Your task to perform on an android device: change notifications settings Image 0: 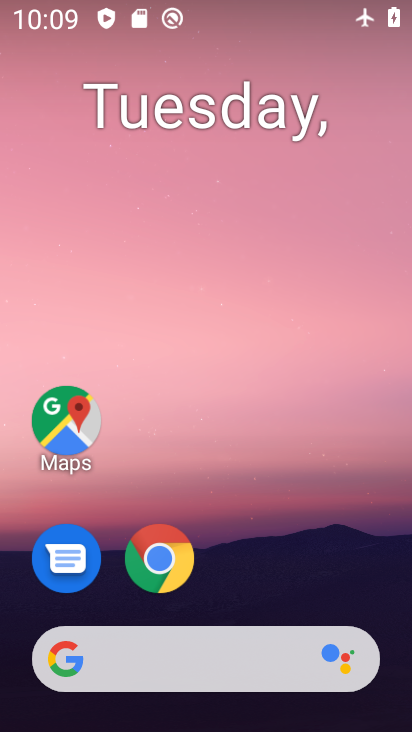
Step 0: drag from (318, 452) to (341, 164)
Your task to perform on an android device: change notifications settings Image 1: 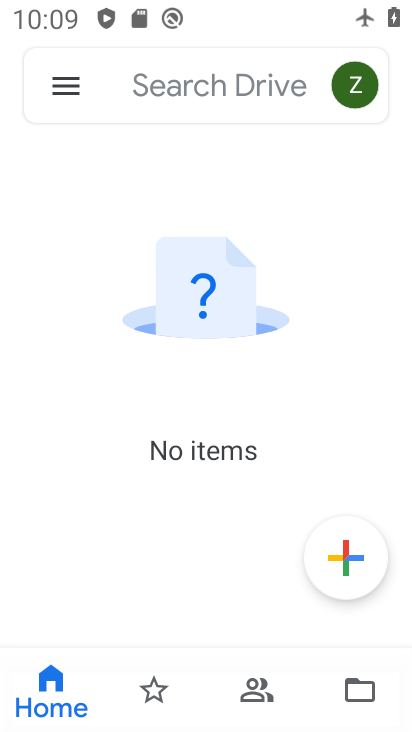
Step 1: press home button
Your task to perform on an android device: change notifications settings Image 2: 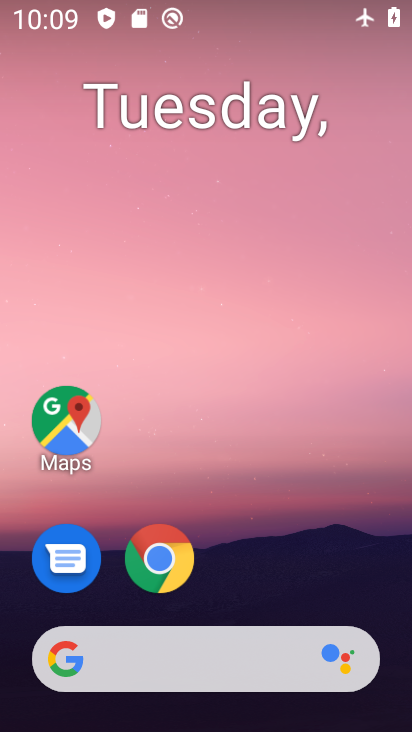
Step 2: drag from (362, 586) to (366, 146)
Your task to perform on an android device: change notifications settings Image 3: 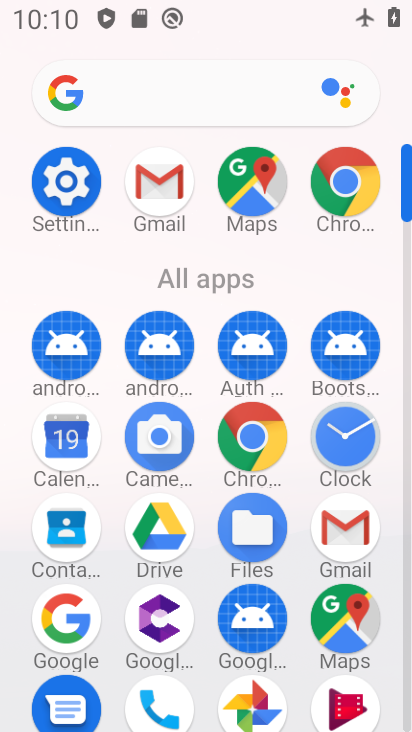
Step 3: click (83, 184)
Your task to perform on an android device: change notifications settings Image 4: 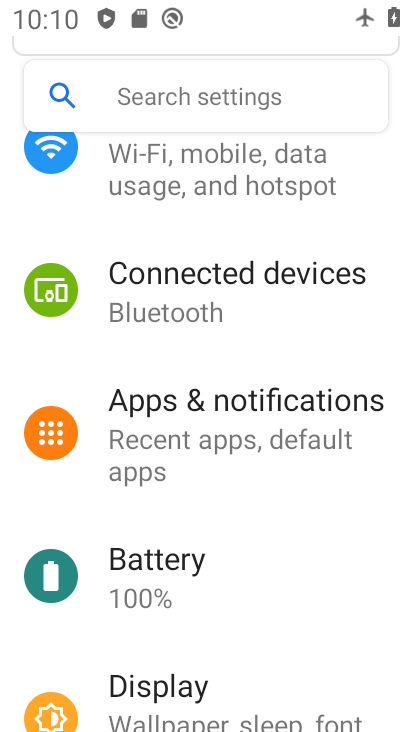
Step 4: drag from (342, 578) to (350, 493)
Your task to perform on an android device: change notifications settings Image 5: 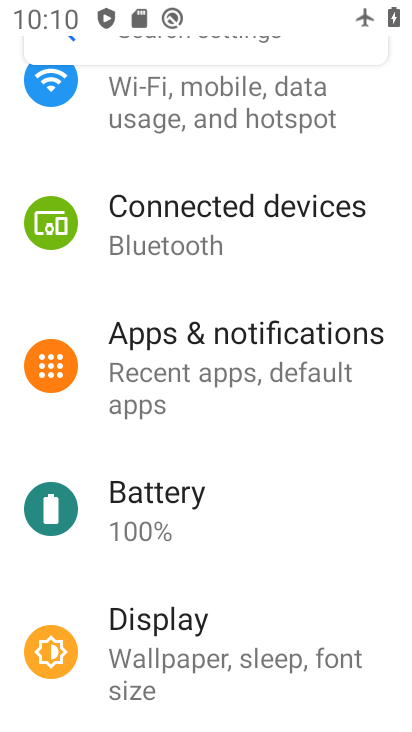
Step 5: drag from (338, 543) to (331, 423)
Your task to perform on an android device: change notifications settings Image 6: 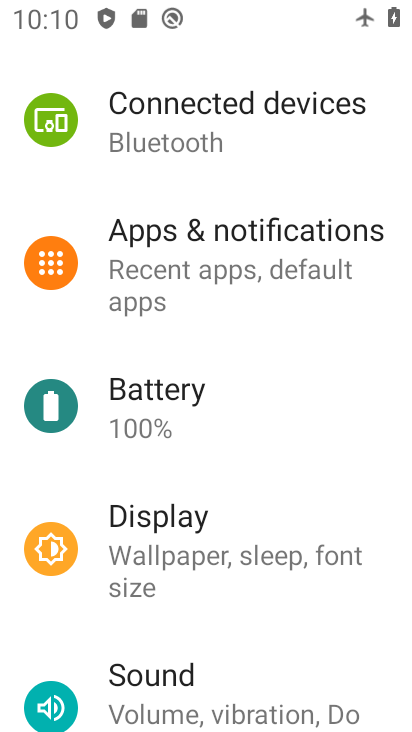
Step 6: click (260, 247)
Your task to perform on an android device: change notifications settings Image 7: 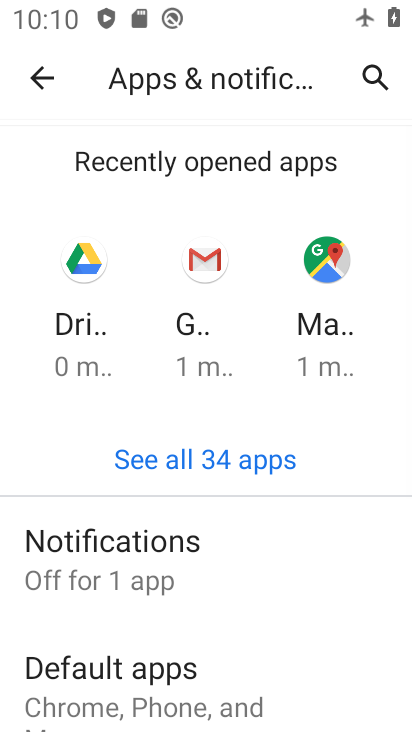
Step 7: click (238, 544)
Your task to perform on an android device: change notifications settings Image 8: 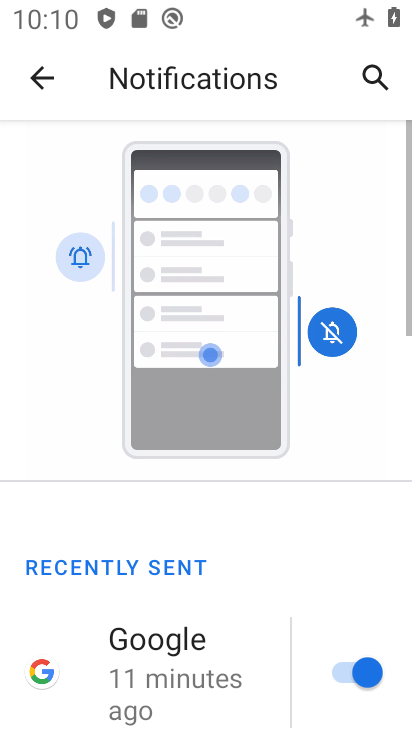
Step 8: drag from (309, 549) to (307, 397)
Your task to perform on an android device: change notifications settings Image 9: 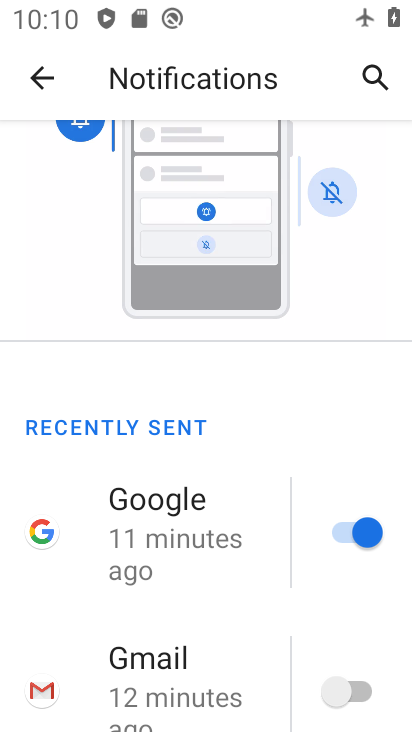
Step 9: drag from (257, 572) to (259, 435)
Your task to perform on an android device: change notifications settings Image 10: 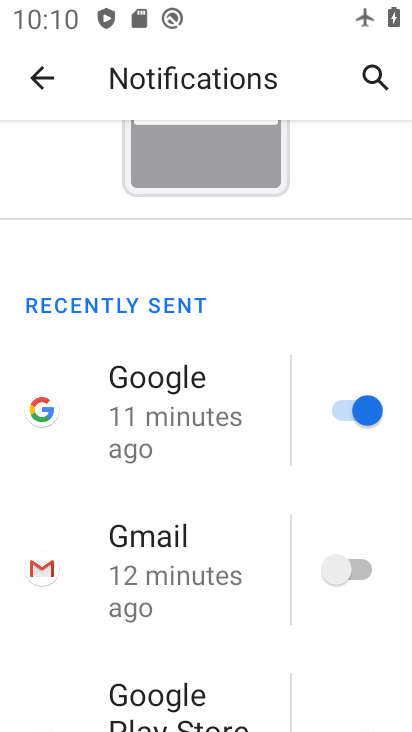
Step 10: drag from (258, 617) to (244, 429)
Your task to perform on an android device: change notifications settings Image 11: 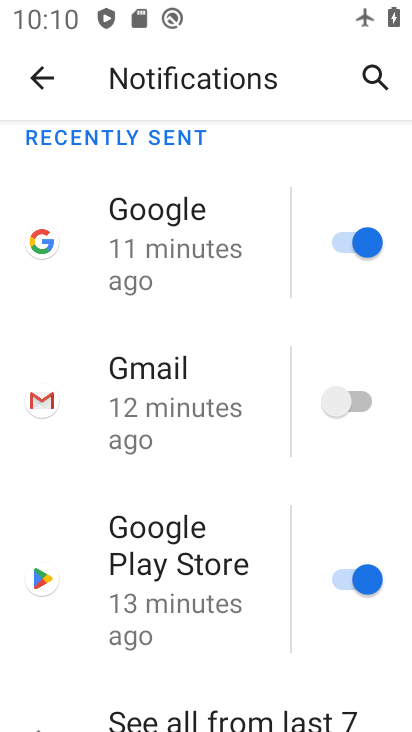
Step 11: click (342, 569)
Your task to perform on an android device: change notifications settings Image 12: 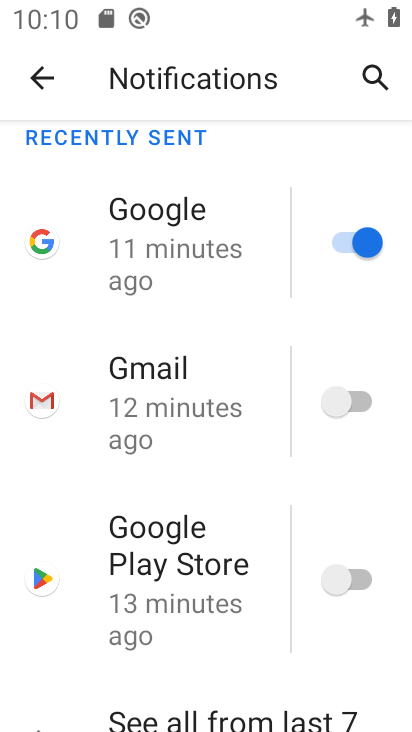
Step 12: click (366, 244)
Your task to perform on an android device: change notifications settings Image 13: 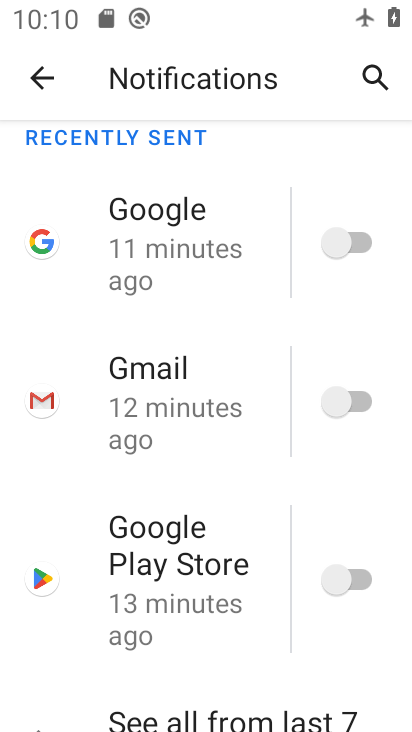
Step 13: task complete